Your task to perform on an android device: Open Chrome and go to the settings page Image 0: 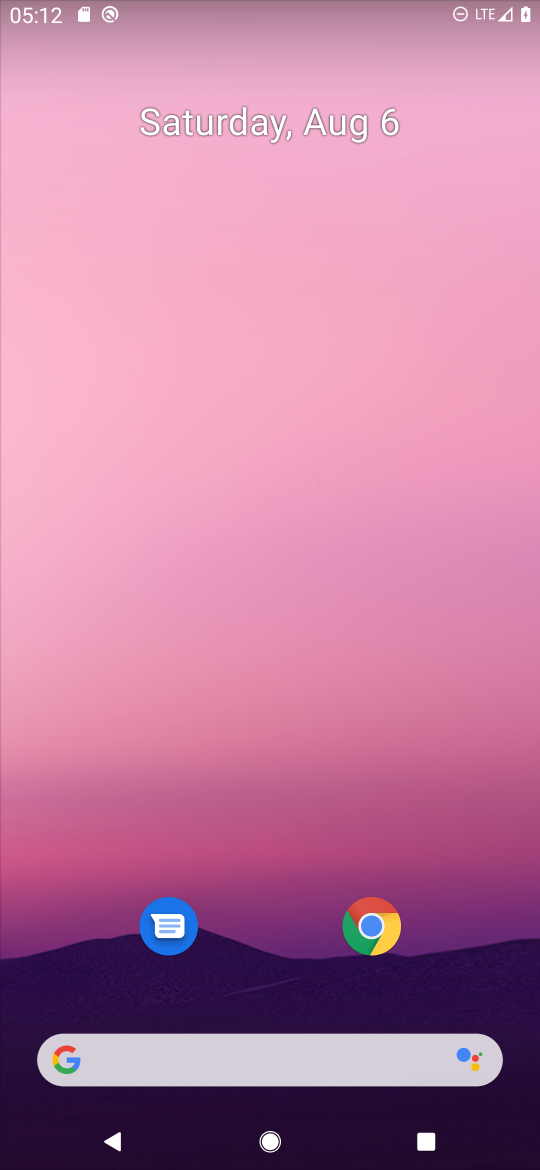
Step 0: click (365, 909)
Your task to perform on an android device: Open Chrome and go to the settings page Image 1: 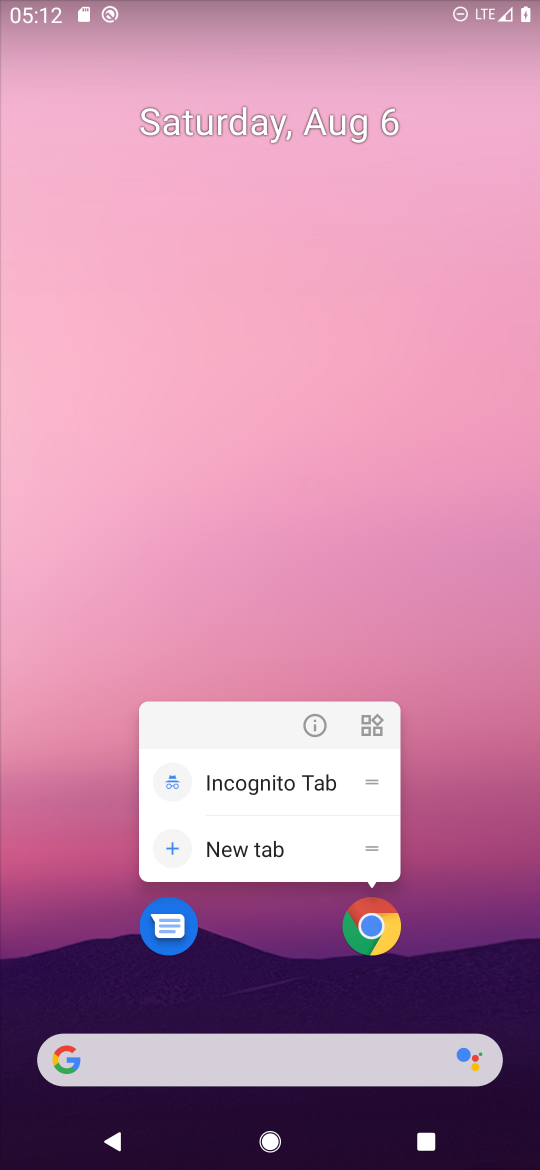
Step 1: click (365, 909)
Your task to perform on an android device: Open Chrome and go to the settings page Image 2: 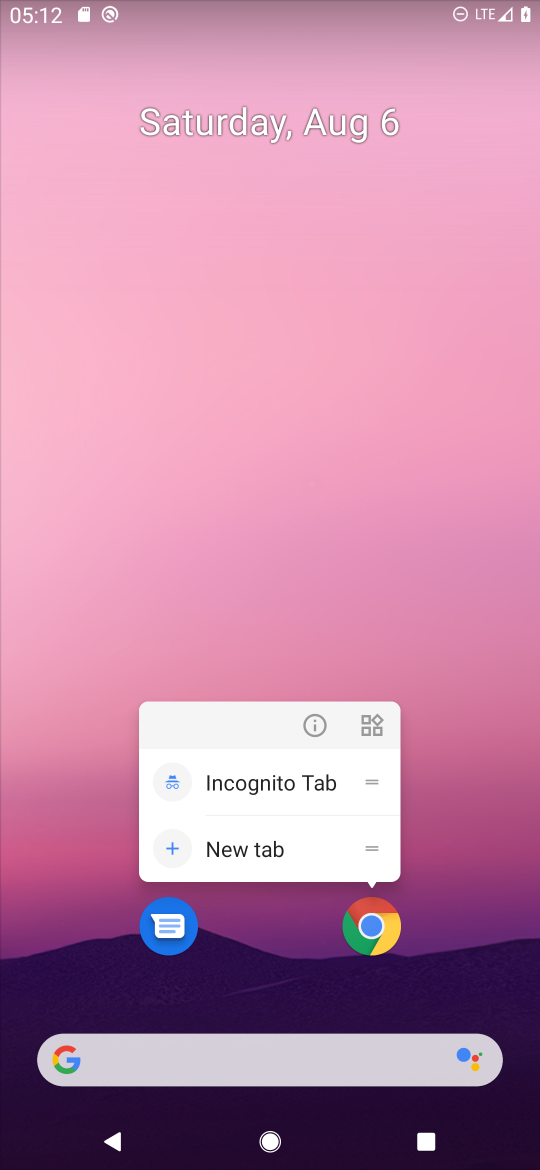
Step 2: click (371, 941)
Your task to perform on an android device: Open Chrome and go to the settings page Image 3: 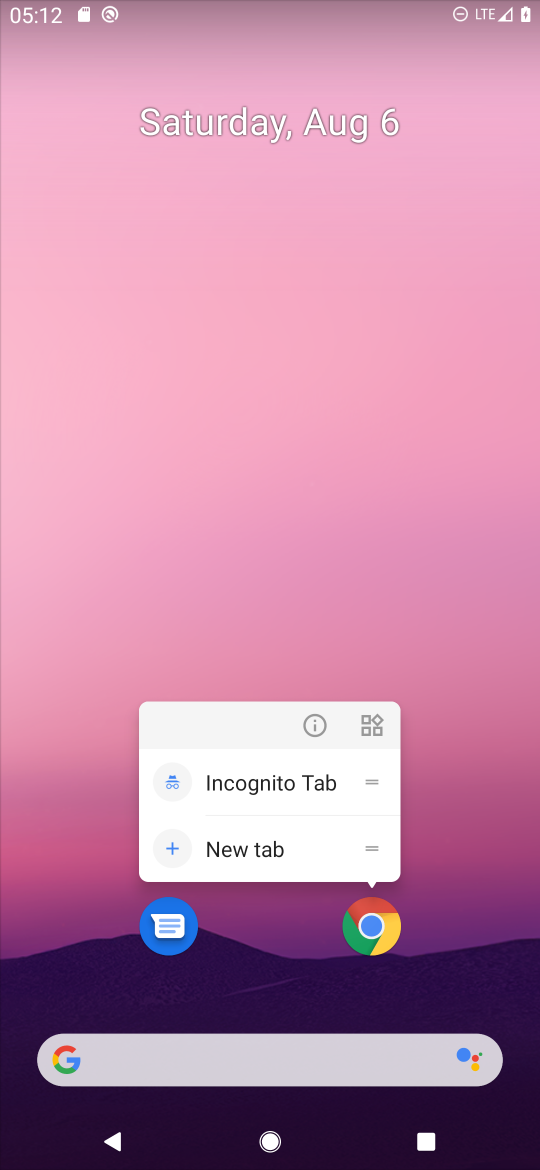
Step 3: click (371, 941)
Your task to perform on an android device: Open Chrome and go to the settings page Image 4: 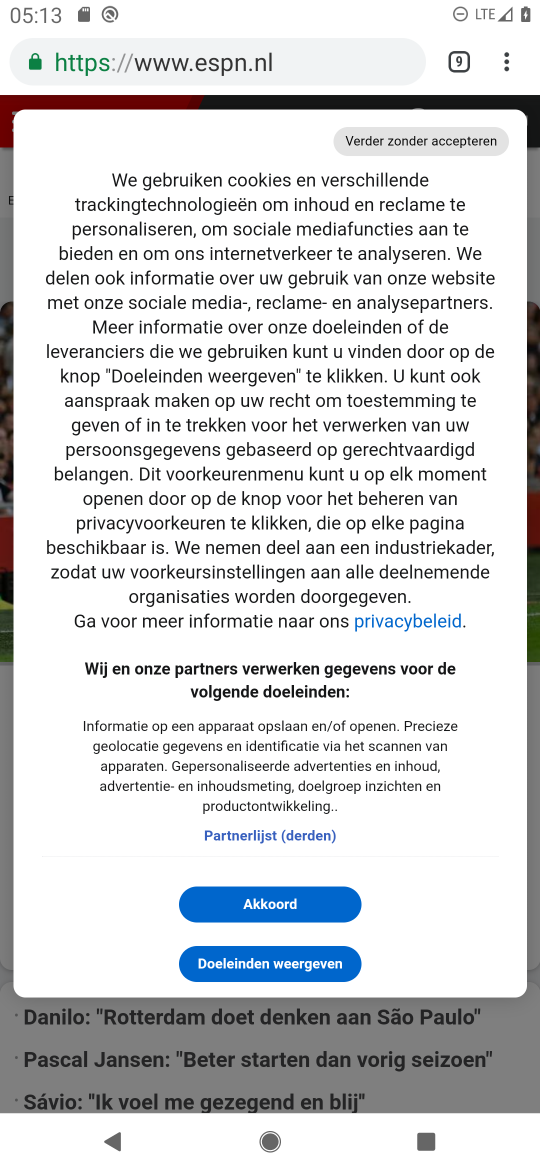
Step 4: click (506, 75)
Your task to perform on an android device: Open Chrome and go to the settings page Image 5: 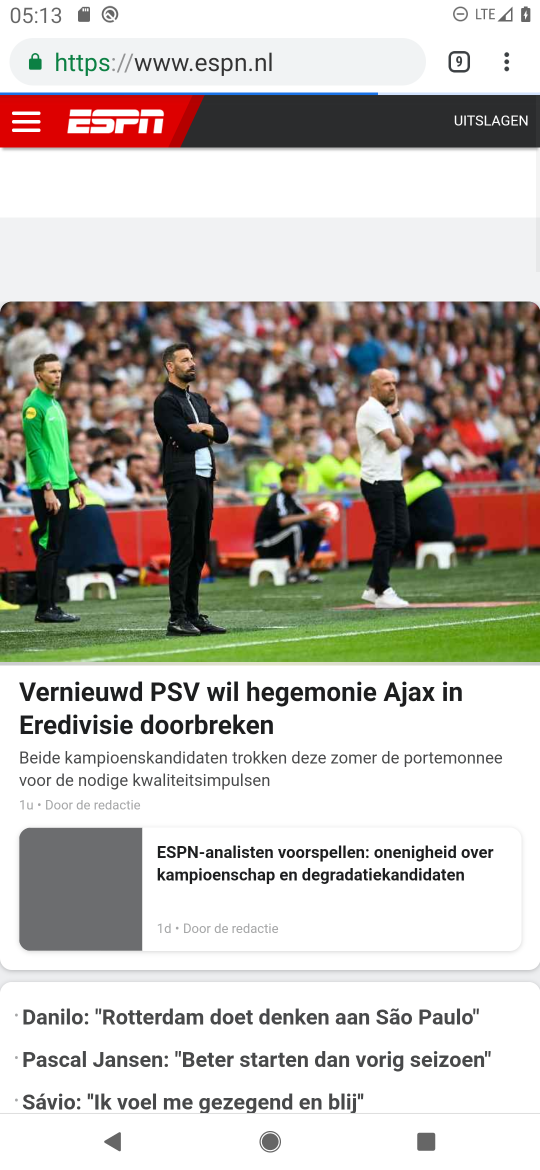
Step 5: task complete